Your task to perform on an android device: Go to CNN.com Image 0: 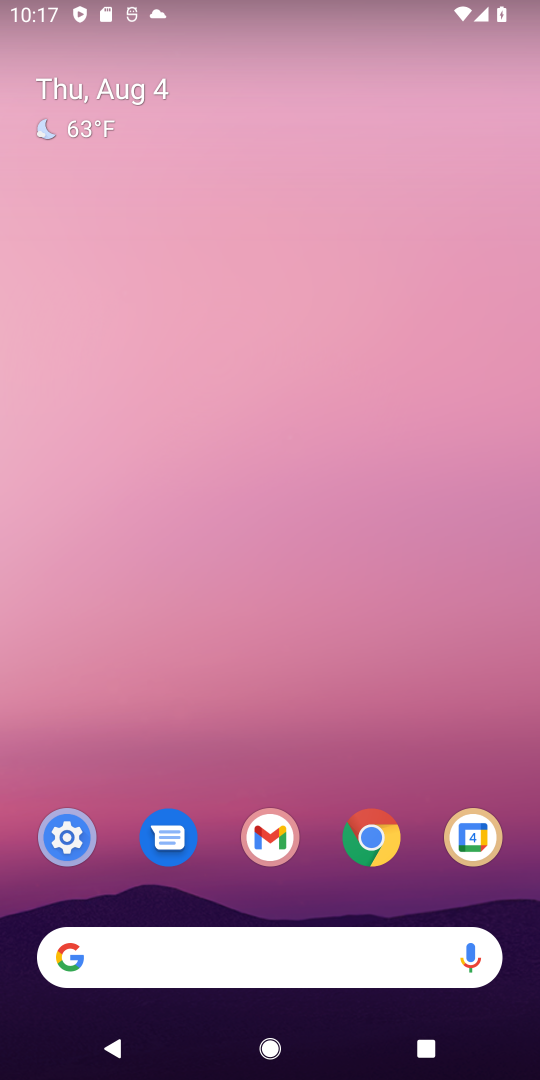
Step 0: press home button
Your task to perform on an android device: Go to CNN.com Image 1: 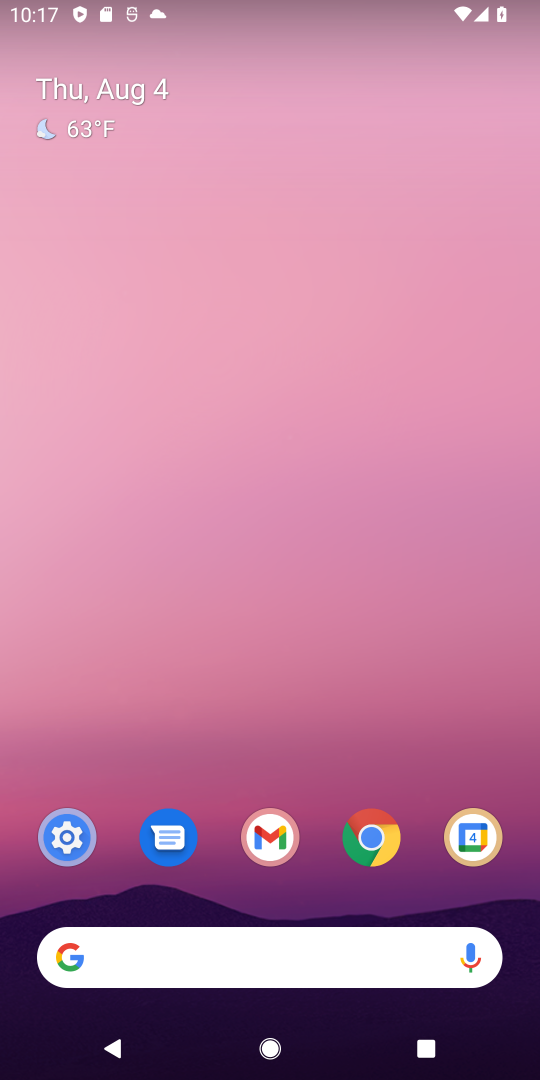
Step 1: drag from (324, 870) to (389, 0)
Your task to perform on an android device: Go to CNN.com Image 2: 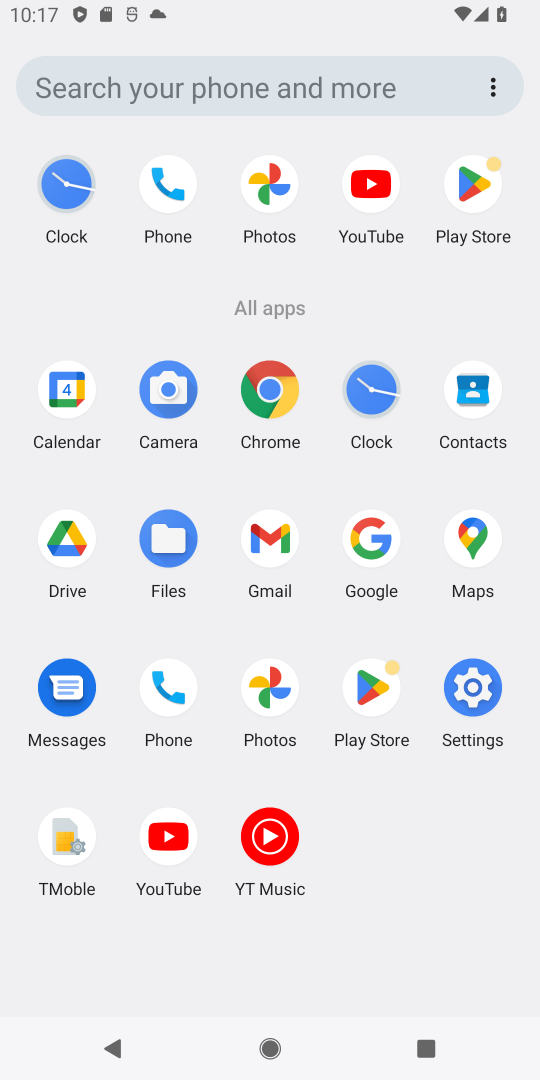
Step 2: click (269, 382)
Your task to perform on an android device: Go to CNN.com Image 3: 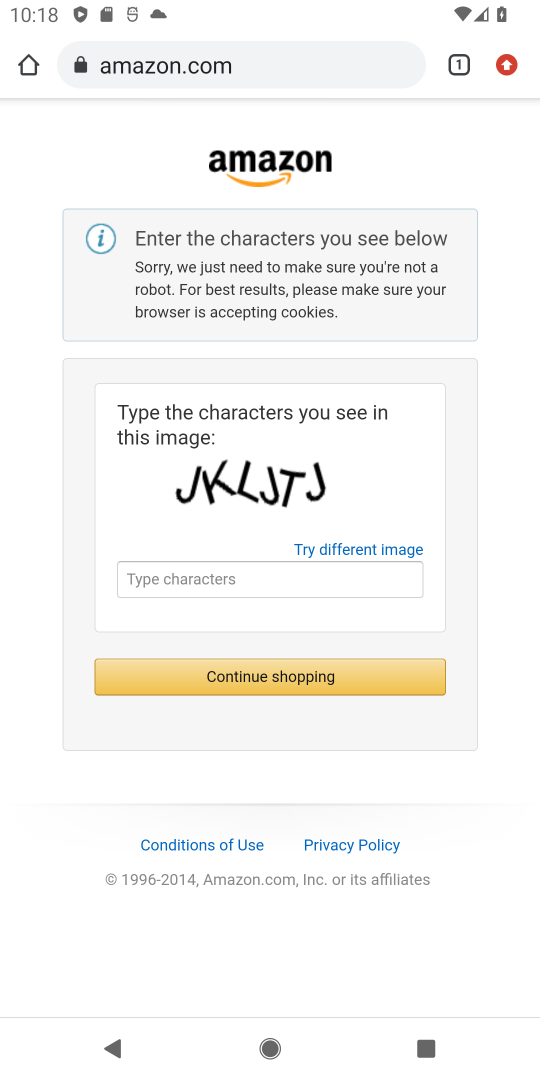
Step 3: click (454, 68)
Your task to perform on an android device: Go to CNN.com Image 4: 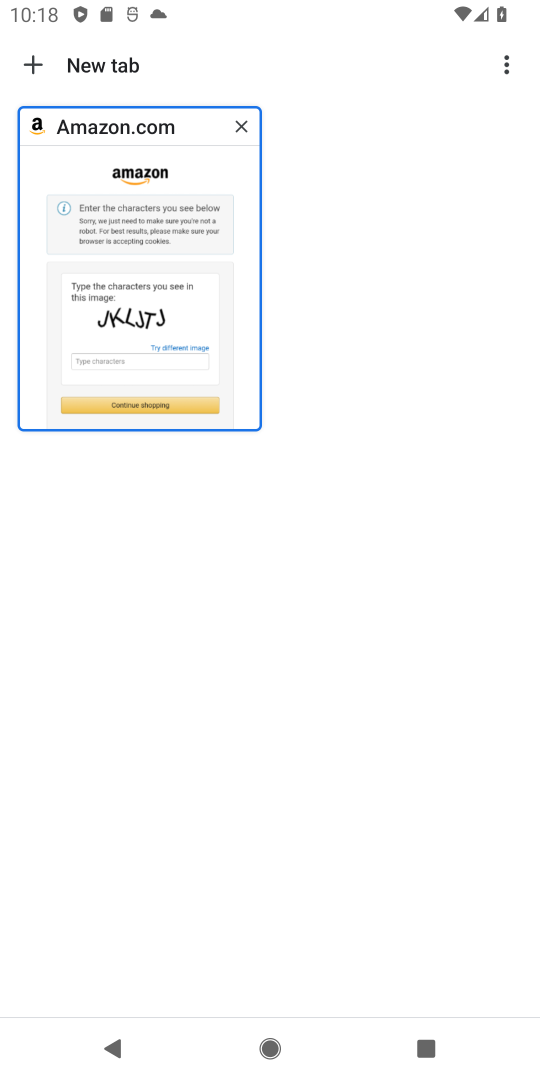
Step 4: click (41, 71)
Your task to perform on an android device: Go to CNN.com Image 5: 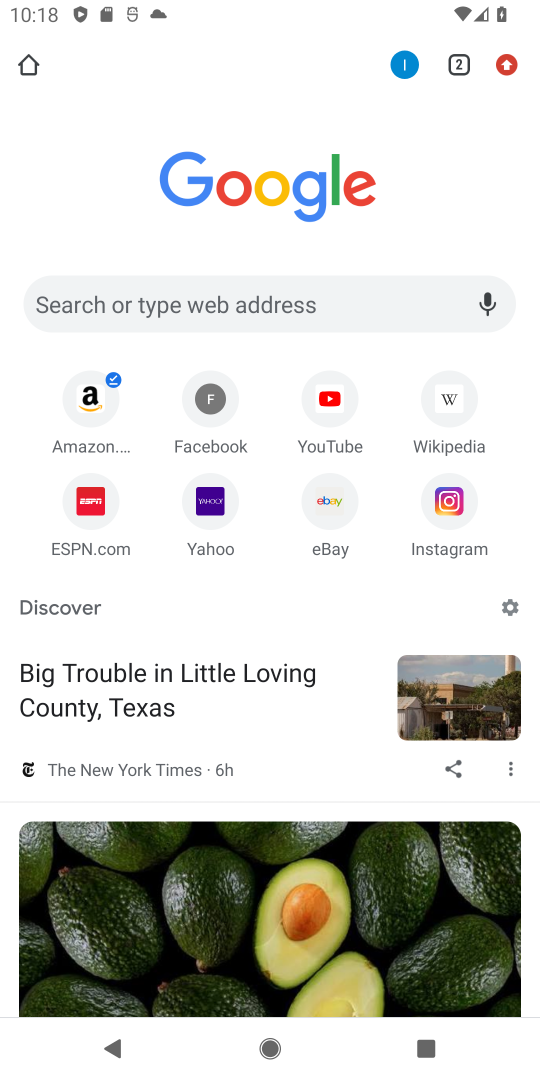
Step 5: click (223, 299)
Your task to perform on an android device: Go to CNN.com Image 6: 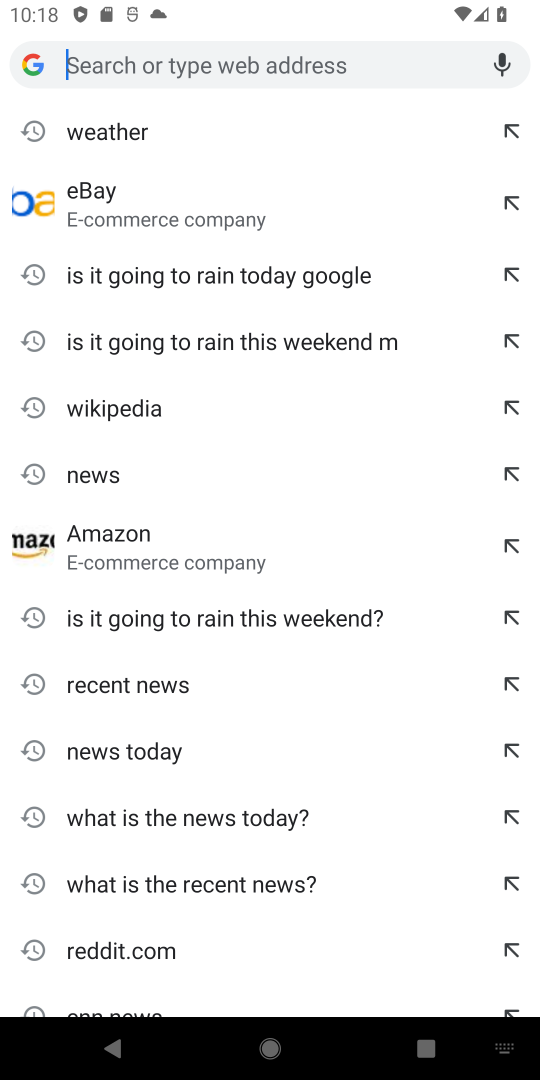
Step 6: type "cnn.com"
Your task to perform on an android device: Go to CNN.com Image 7: 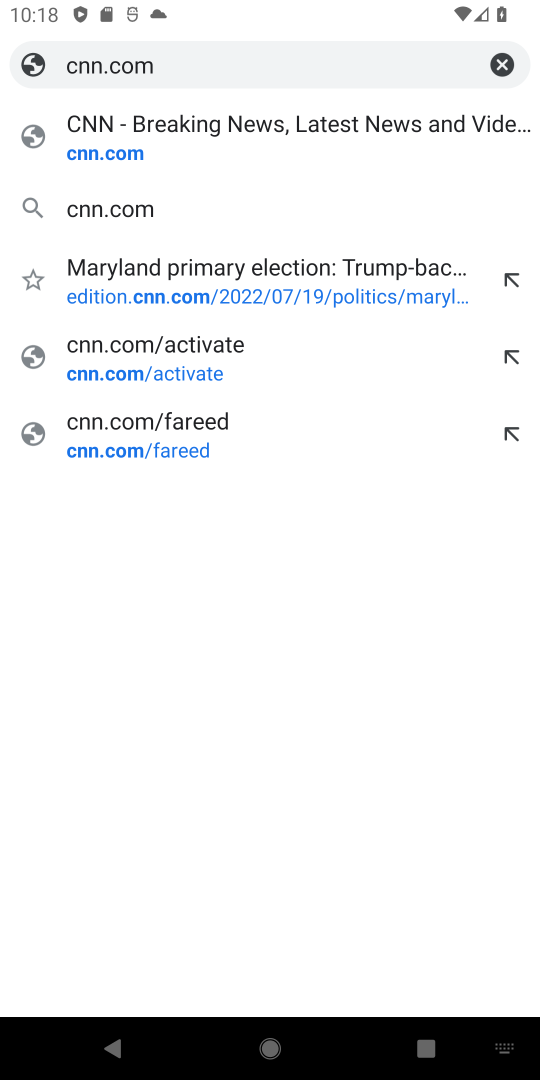
Step 7: click (198, 134)
Your task to perform on an android device: Go to CNN.com Image 8: 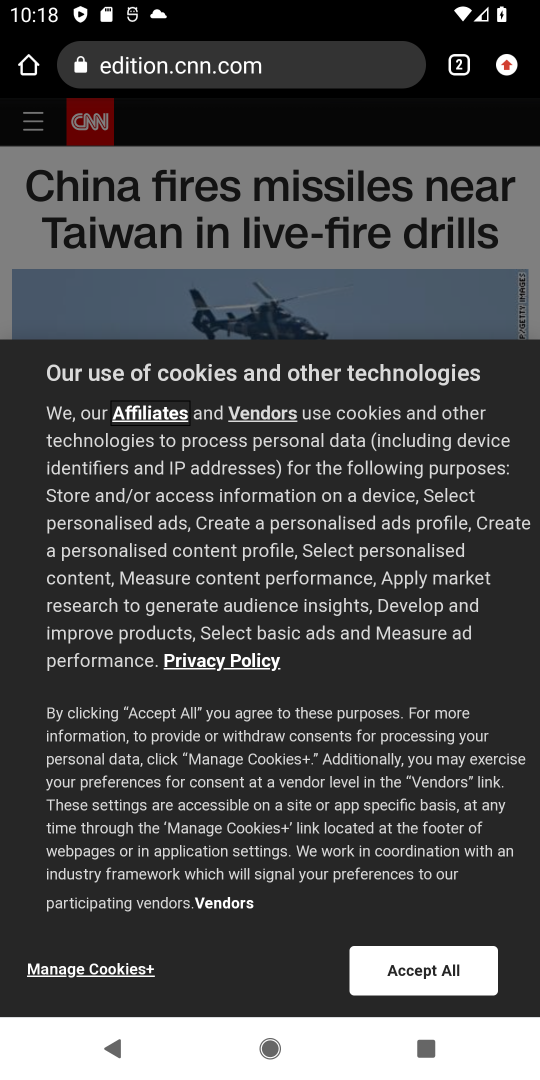
Step 8: click (432, 956)
Your task to perform on an android device: Go to CNN.com Image 9: 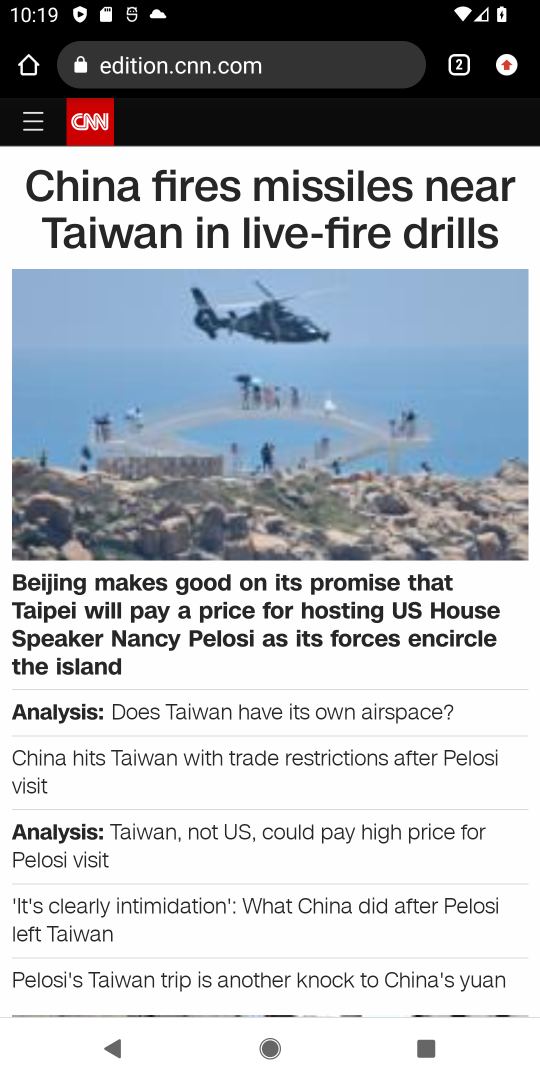
Step 9: task complete